Your task to perform on an android device: Open Yahoo.com Image 0: 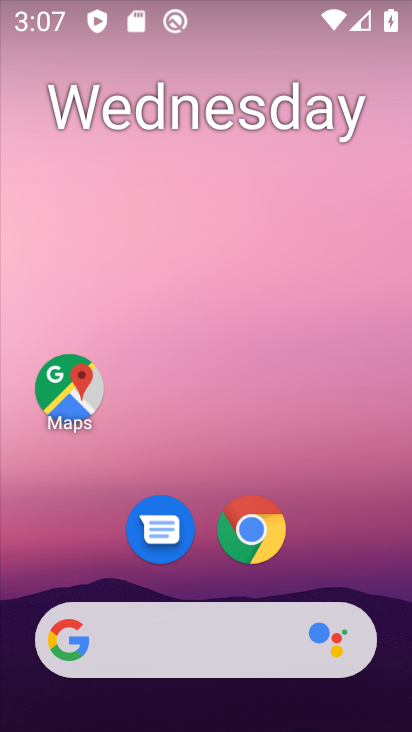
Step 0: click (254, 527)
Your task to perform on an android device: Open Yahoo.com Image 1: 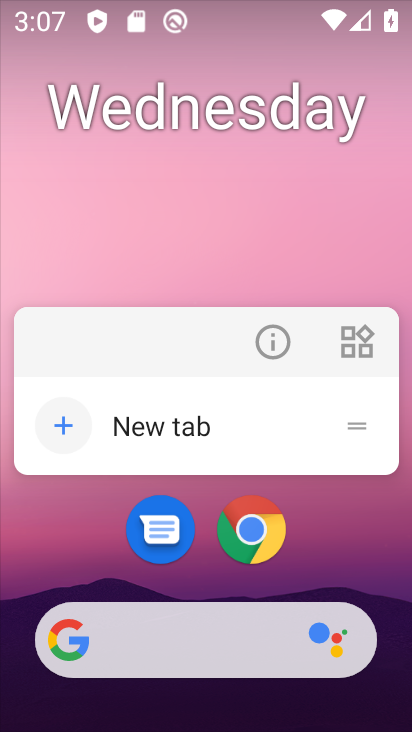
Step 1: click (254, 527)
Your task to perform on an android device: Open Yahoo.com Image 2: 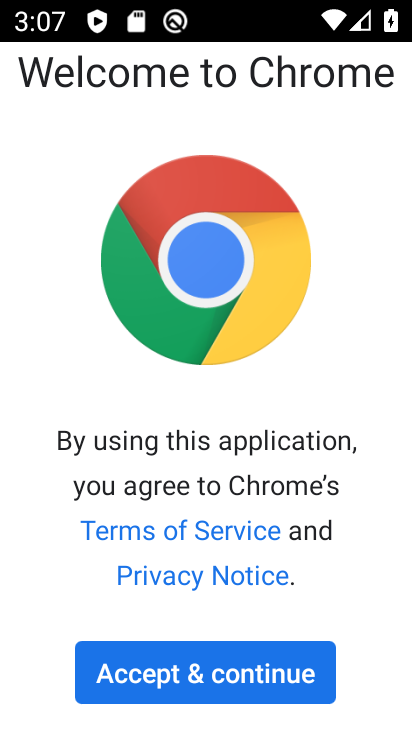
Step 2: click (274, 679)
Your task to perform on an android device: Open Yahoo.com Image 3: 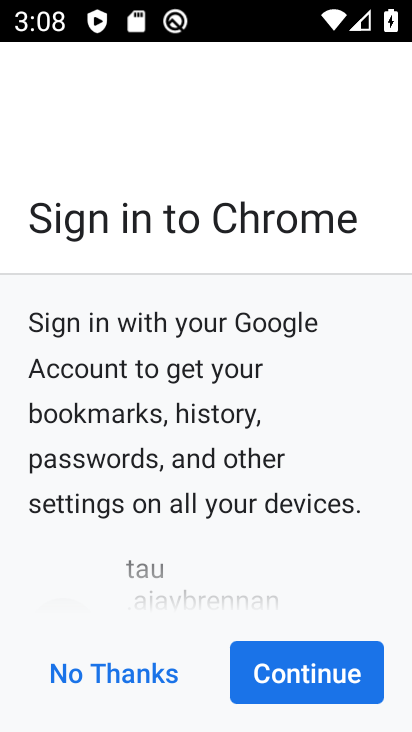
Step 3: click (274, 679)
Your task to perform on an android device: Open Yahoo.com Image 4: 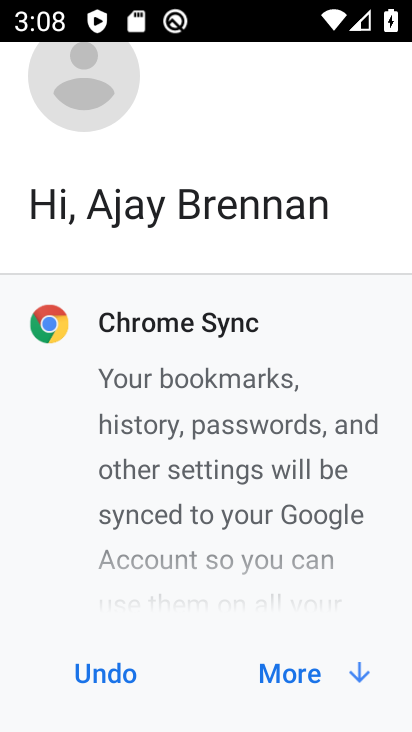
Step 4: click (274, 679)
Your task to perform on an android device: Open Yahoo.com Image 5: 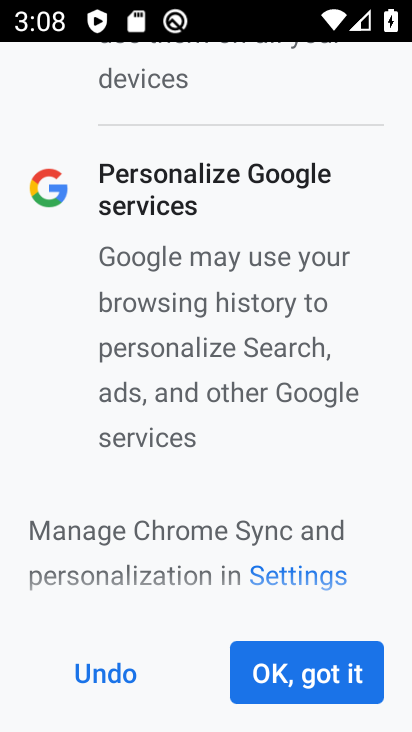
Step 5: drag from (222, 679) to (274, 679)
Your task to perform on an android device: Open Yahoo.com Image 6: 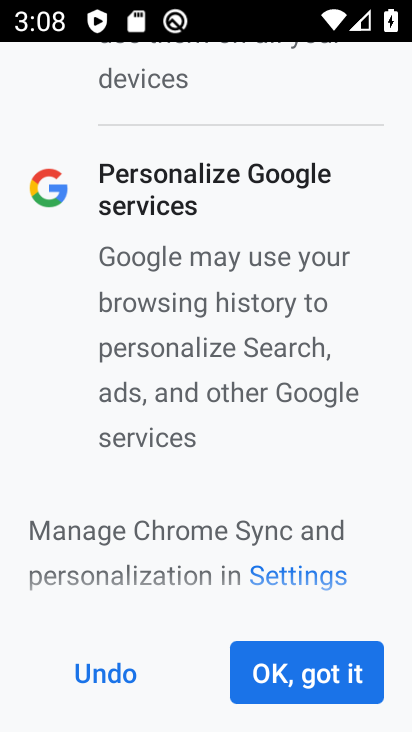
Step 6: click (329, 682)
Your task to perform on an android device: Open Yahoo.com Image 7: 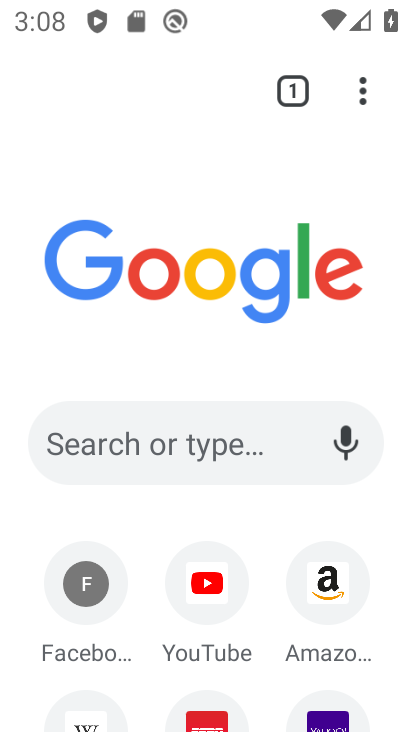
Step 7: click (339, 716)
Your task to perform on an android device: Open Yahoo.com Image 8: 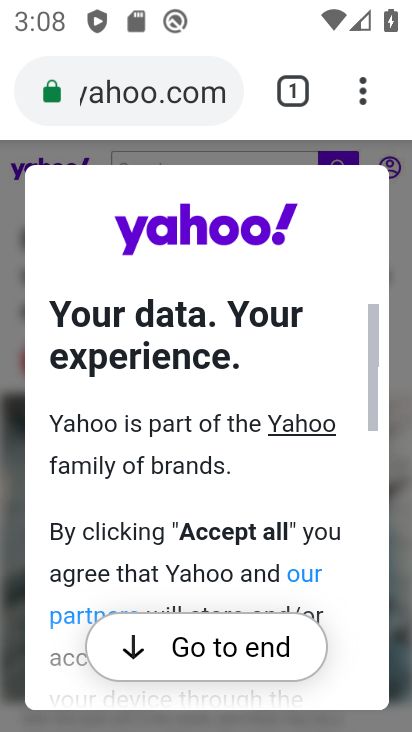
Step 8: task complete